Your task to perform on an android device: Add "asus zenbook" to the cart on amazon.com, then select checkout. Image 0: 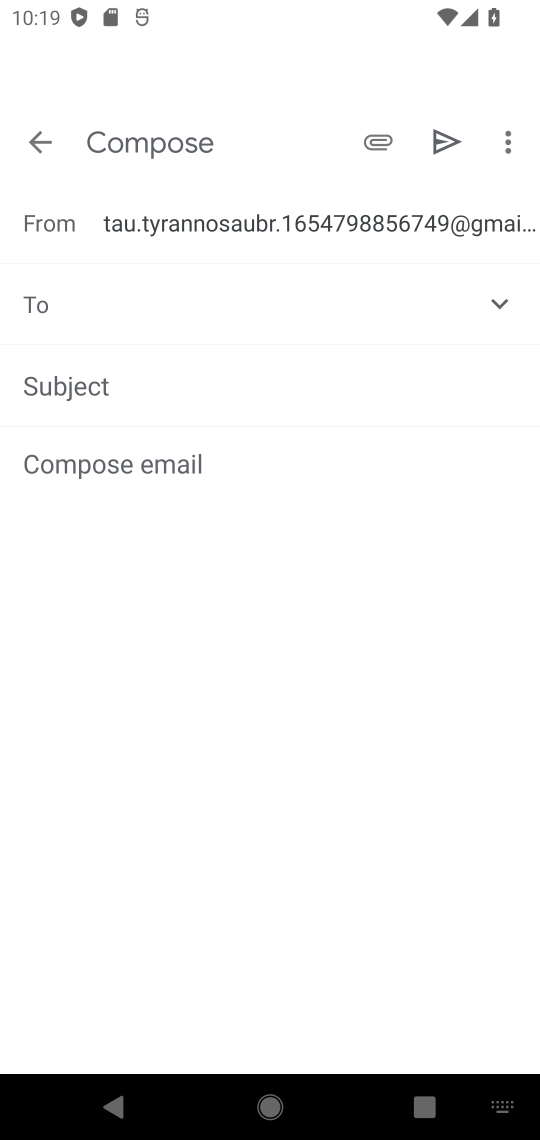
Step 0: press home button
Your task to perform on an android device: Add "asus zenbook" to the cart on amazon.com, then select checkout. Image 1: 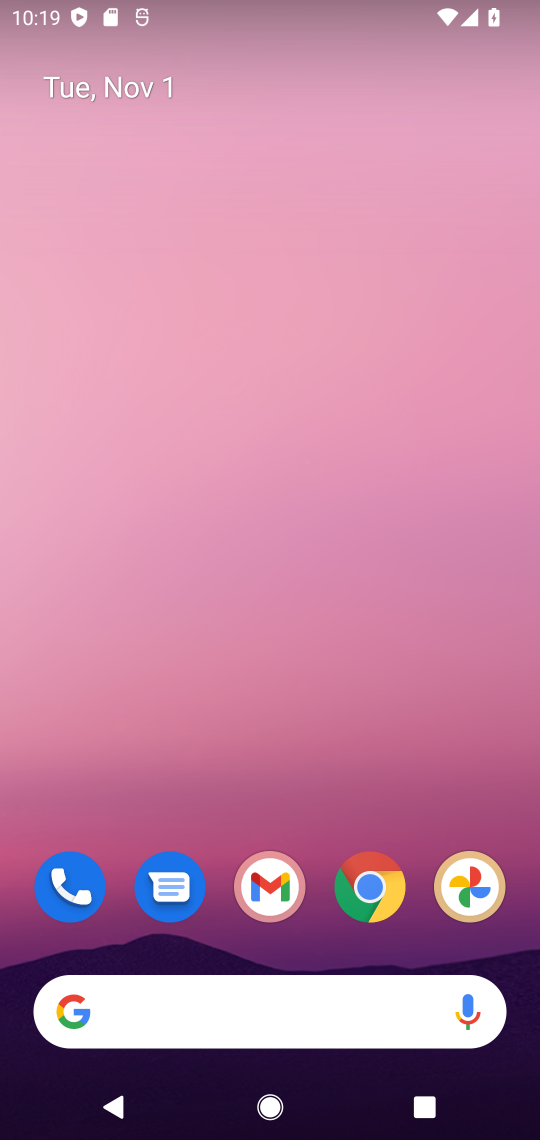
Step 1: click (383, 877)
Your task to perform on an android device: Add "asus zenbook" to the cart on amazon.com, then select checkout. Image 2: 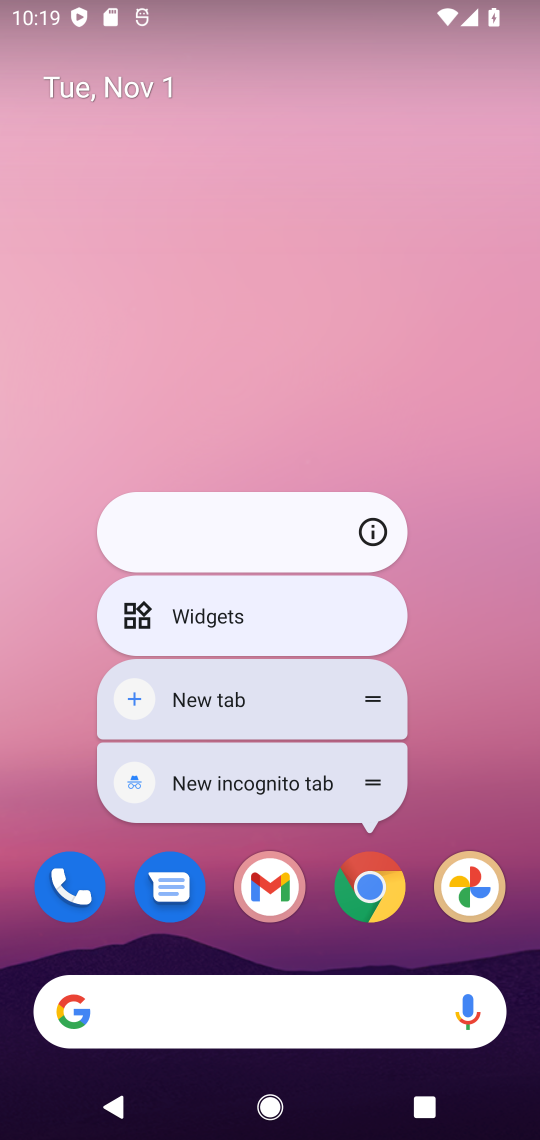
Step 2: click (376, 880)
Your task to perform on an android device: Add "asus zenbook" to the cart on amazon.com, then select checkout. Image 3: 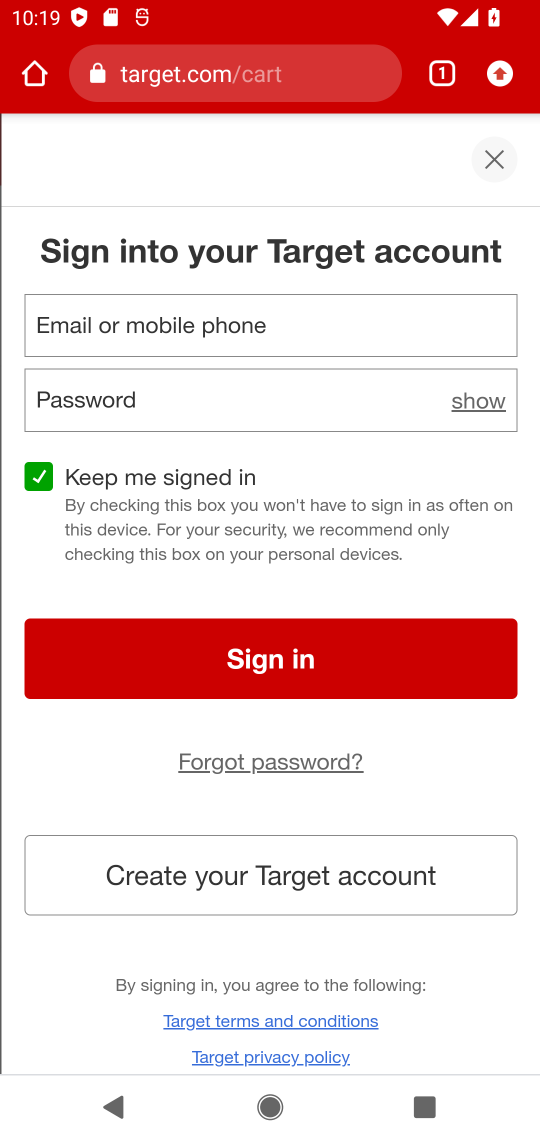
Step 3: click (305, 70)
Your task to perform on an android device: Add "asus zenbook" to the cart on amazon.com, then select checkout. Image 4: 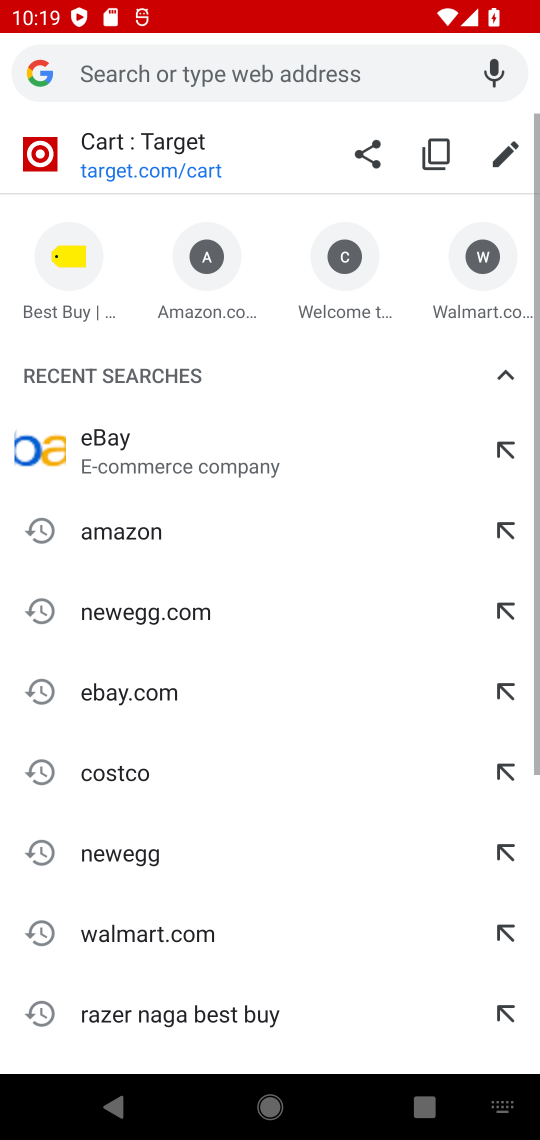
Step 4: click (214, 274)
Your task to perform on an android device: Add "asus zenbook" to the cart on amazon.com, then select checkout. Image 5: 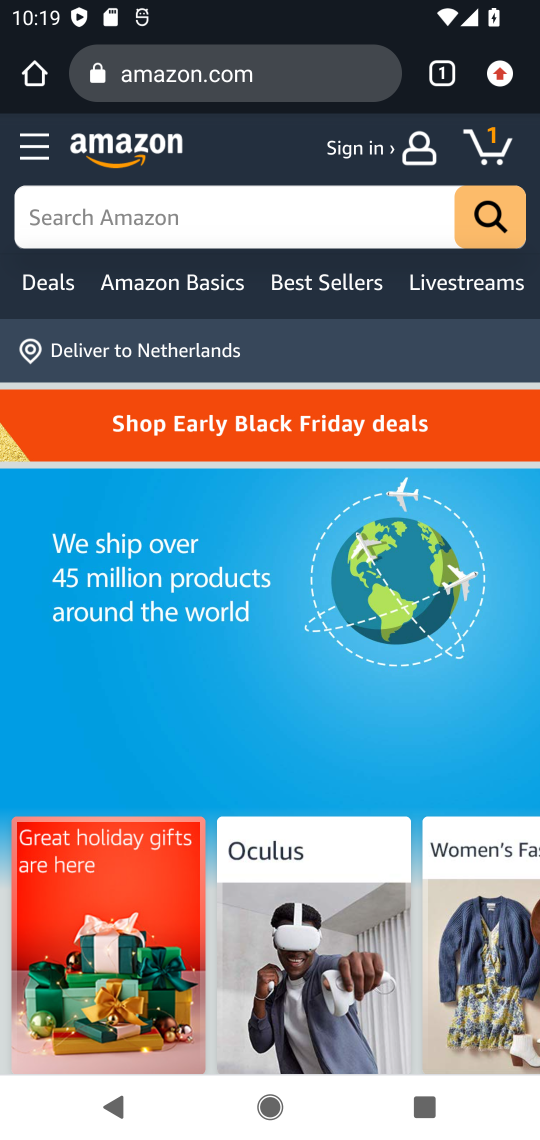
Step 5: click (356, 196)
Your task to perform on an android device: Add "asus zenbook" to the cart on amazon.com, then select checkout. Image 6: 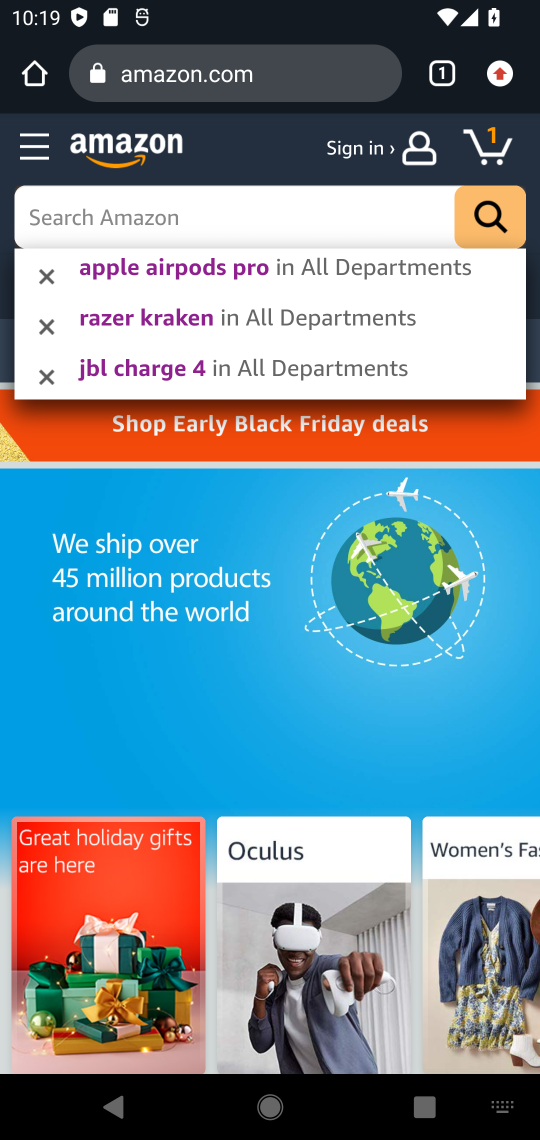
Step 6: type "asus zenbook"
Your task to perform on an android device: Add "asus zenbook" to the cart on amazon.com, then select checkout. Image 7: 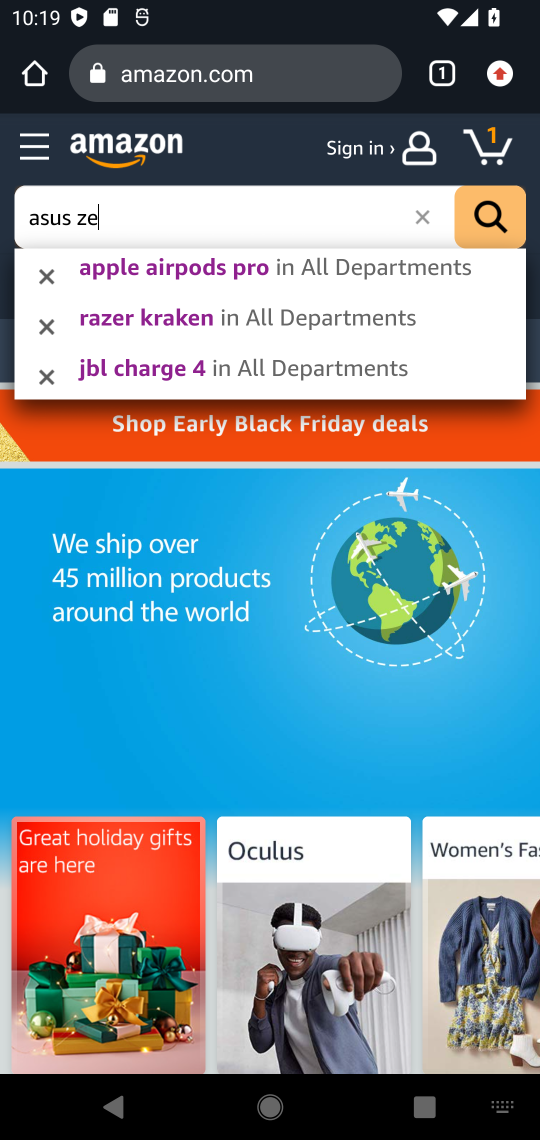
Step 7: press enter
Your task to perform on an android device: Add "asus zenbook" to the cart on amazon.com, then select checkout. Image 8: 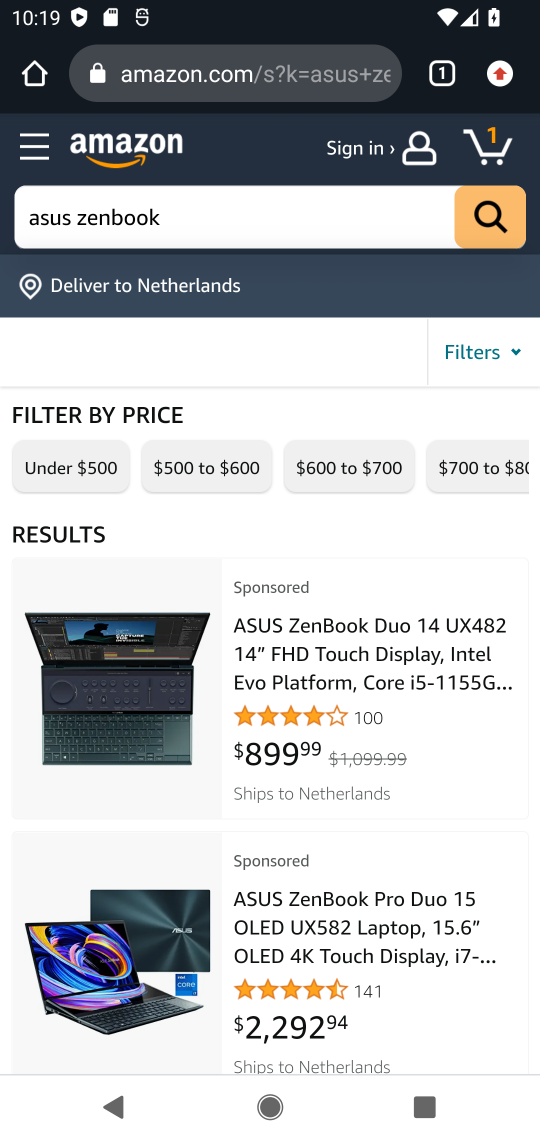
Step 8: click (118, 683)
Your task to perform on an android device: Add "asus zenbook" to the cart on amazon.com, then select checkout. Image 9: 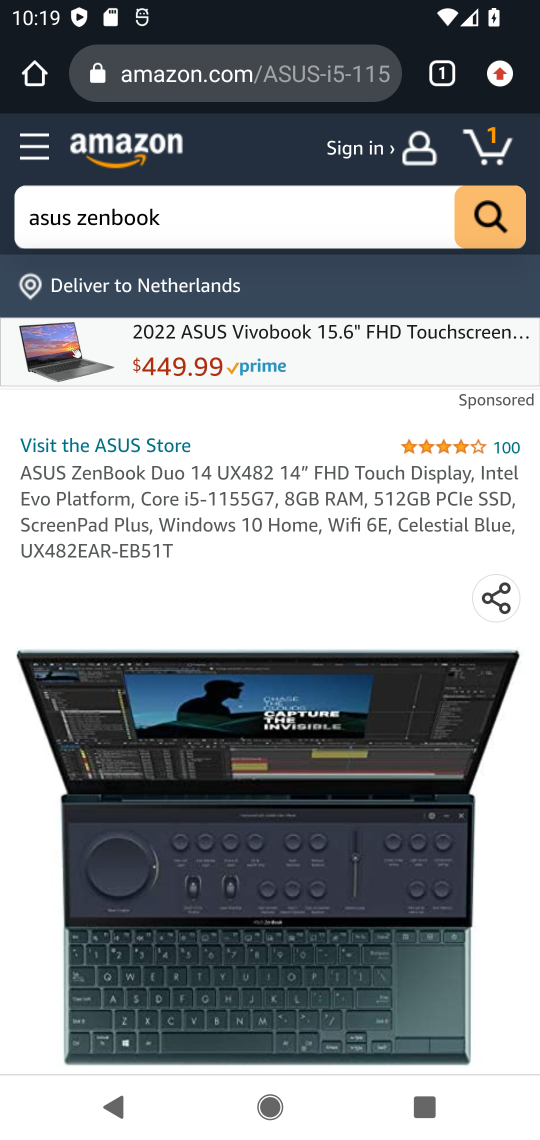
Step 9: drag from (221, 876) to (240, 592)
Your task to perform on an android device: Add "asus zenbook" to the cart on amazon.com, then select checkout. Image 10: 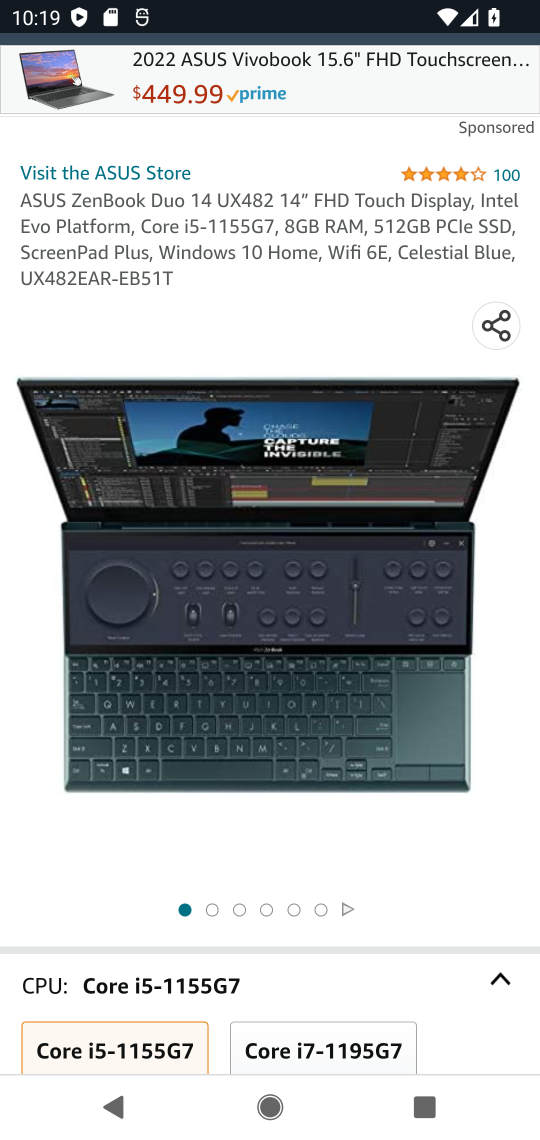
Step 10: drag from (307, 825) to (311, 515)
Your task to perform on an android device: Add "asus zenbook" to the cart on amazon.com, then select checkout. Image 11: 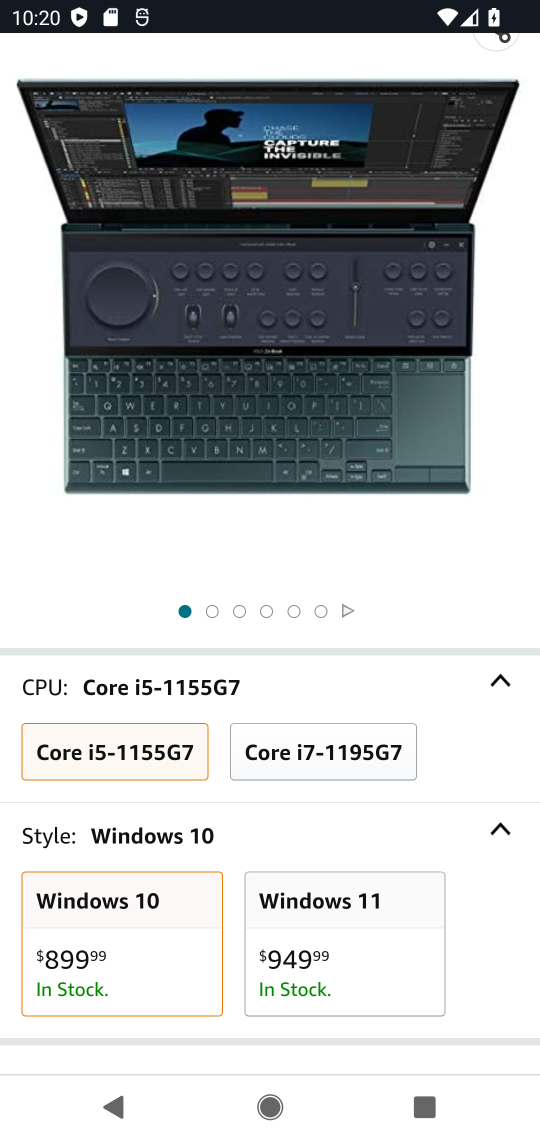
Step 11: drag from (380, 828) to (343, 478)
Your task to perform on an android device: Add "asus zenbook" to the cart on amazon.com, then select checkout. Image 12: 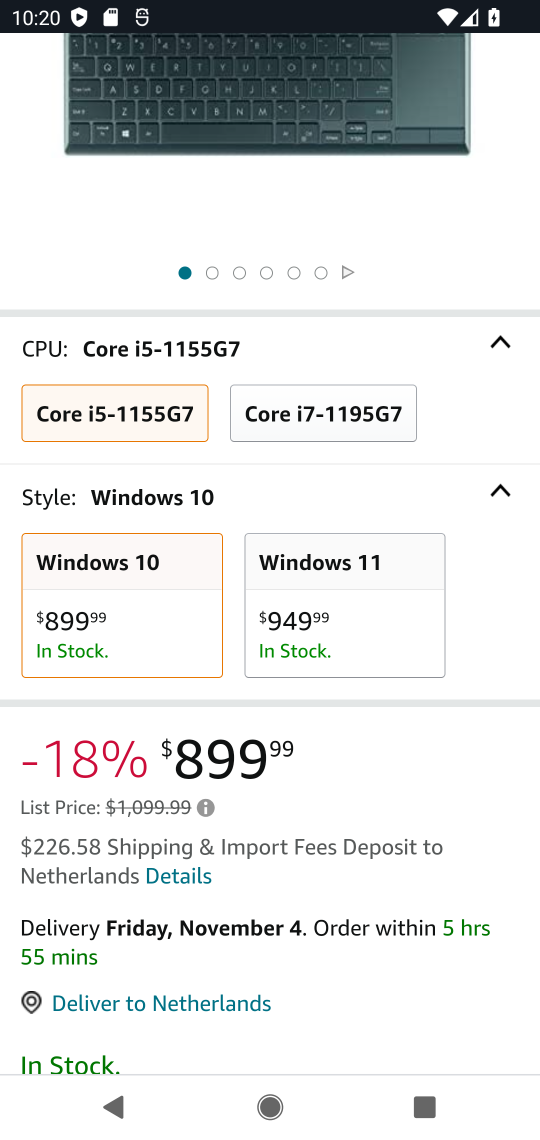
Step 12: drag from (400, 844) to (406, 498)
Your task to perform on an android device: Add "asus zenbook" to the cart on amazon.com, then select checkout. Image 13: 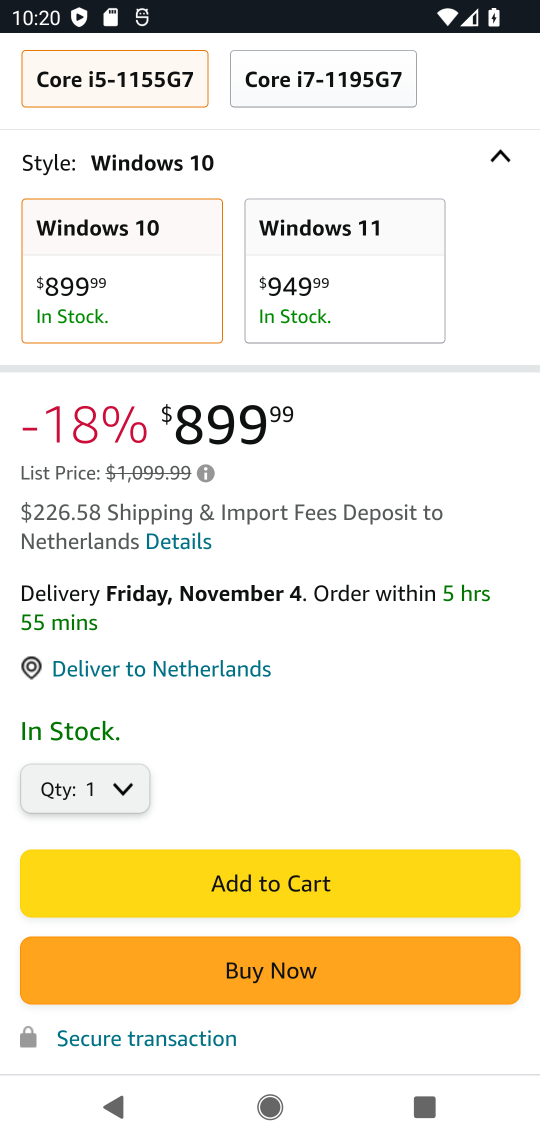
Step 13: click (348, 882)
Your task to perform on an android device: Add "asus zenbook" to the cart on amazon.com, then select checkout. Image 14: 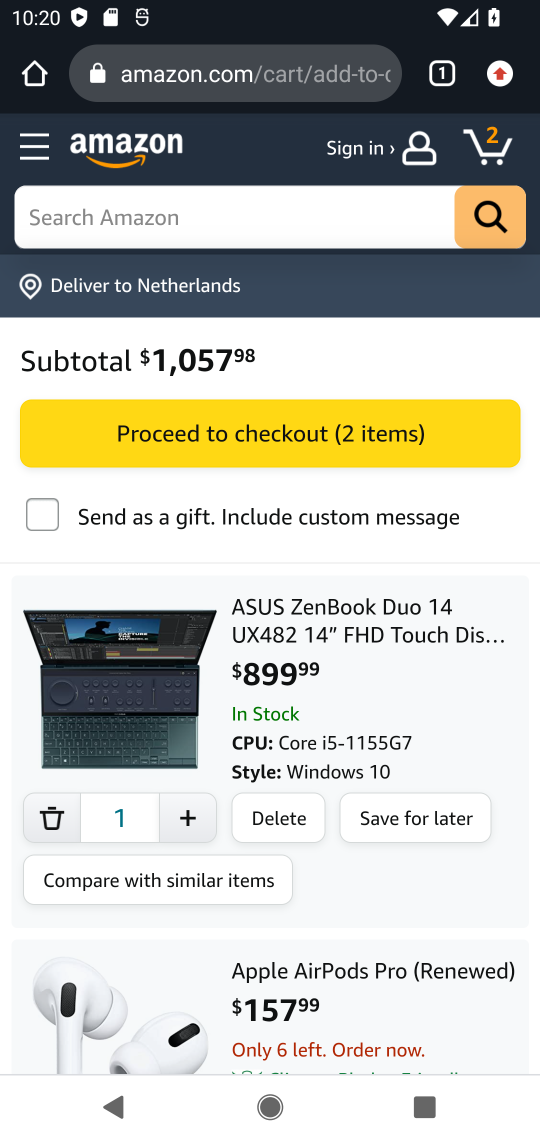
Step 14: click (309, 431)
Your task to perform on an android device: Add "asus zenbook" to the cart on amazon.com, then select checkout. Image 15: 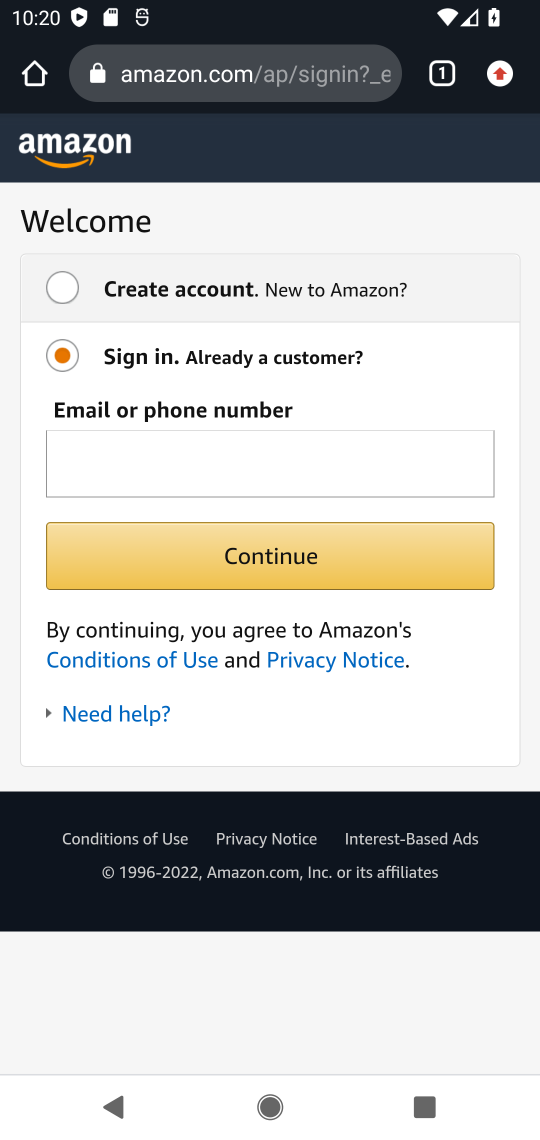
Step 15: task complete